Your task to perform on an android device: remove spam from my inbox in the gmail app Image 0: 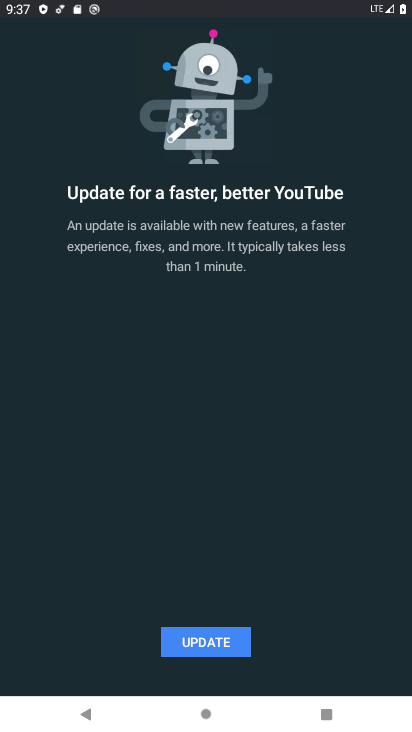
Step 0: press home button
Your task to perform on an android device: remove spam from my inbox in the gmail app Image 1: 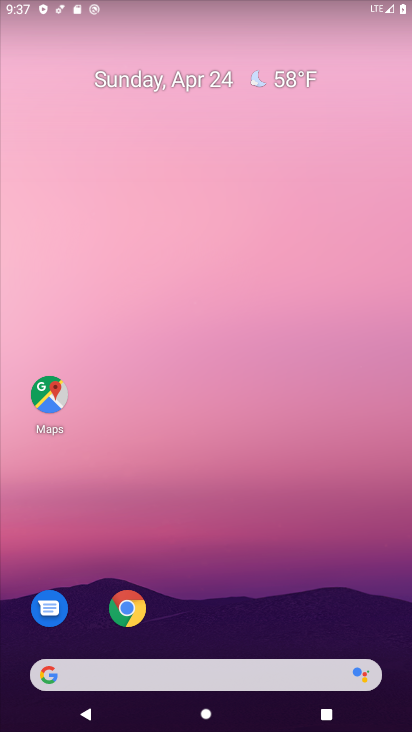
Step 1: drag from (336, 487) to (382, 89)
Your task to perform on an android device: remove spam from my inbox in the gmail app Image 2: 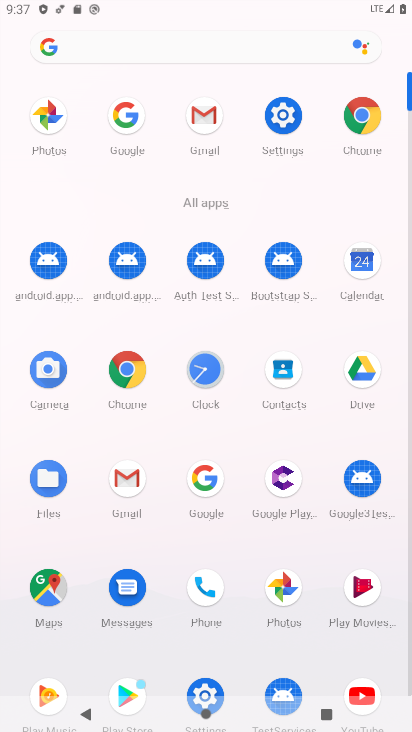
Step 2: click (211, 137)
Your task to perform on an android device: remove spam from my inbox in the gmail app Image 3: 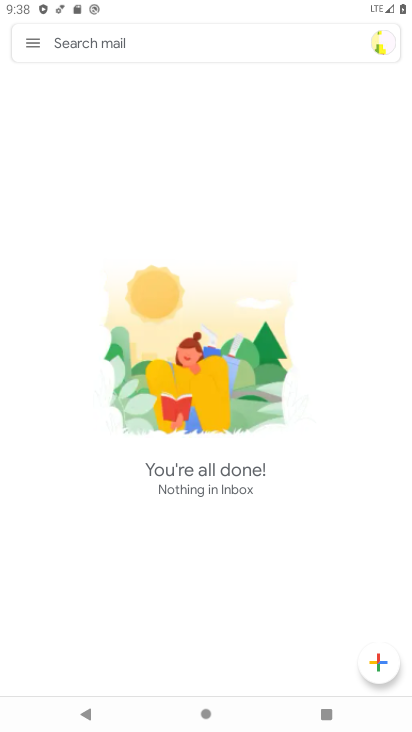
Step 3: click (30, 47)
Your task to perform on an android device: remove spam from my inbox in the gmail app Image 4: 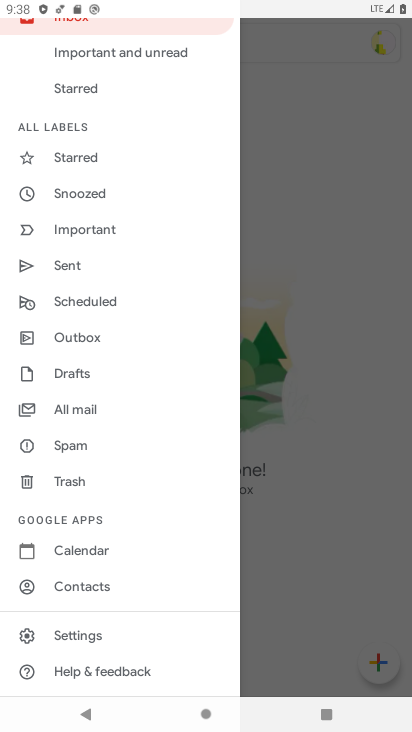
Step 4: click (74, 452)
Your task to perform on an android device: remove spam from my inbox in the gmail app Image 5: 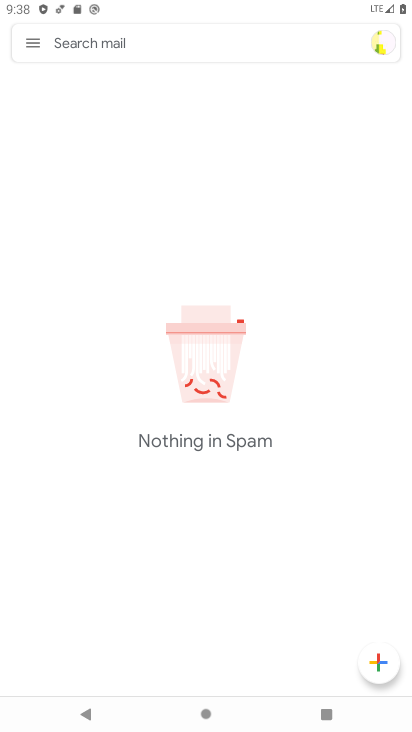
Step 5: click (74, 452)
Your task to perform on an android device: remove spam from my inbox in the gmail app Image 6: 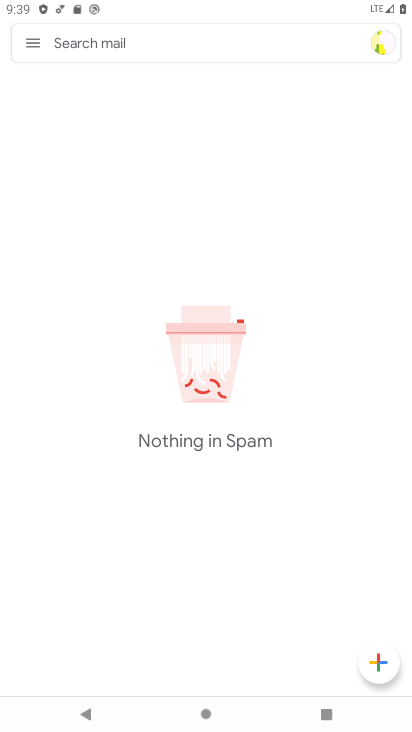
Step 6: click (8, 38)
Your task to perform on an android device: remove spam from my inbox in the gmail app Image 7: 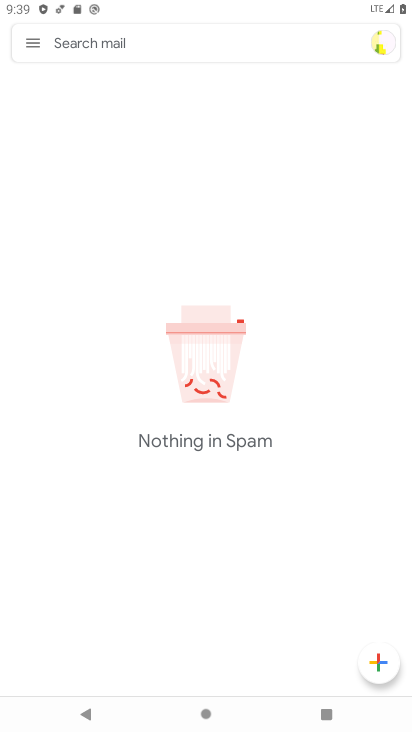
Step 7: click (26, 56)
Your task to perform on an android device: remove spam from my inbox in the gmail app Image 8: 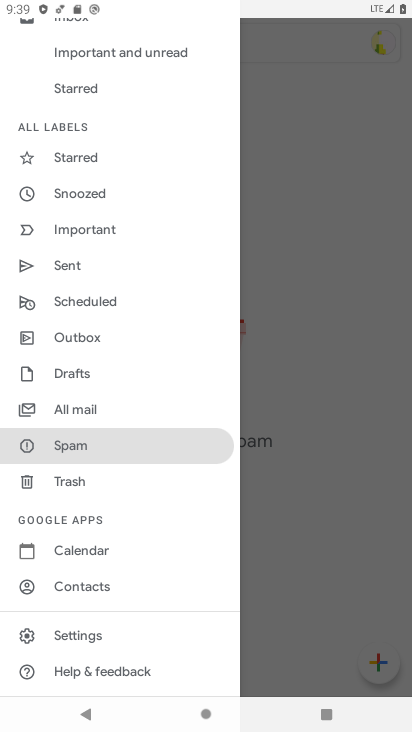
Step 8: click (73, 443)
Your task to perform on an android device: remove spam from my inbox in the gmail app Image 9: 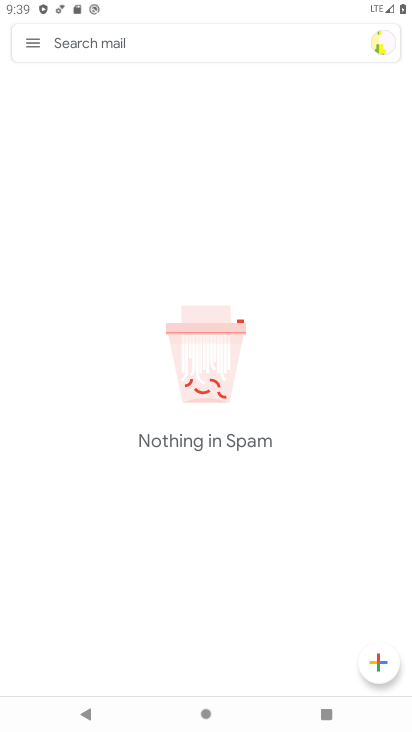
Step 9: click (25, 48)
Your task to perform on an android device: remove spam from my inbox in the gmail app Image 10: 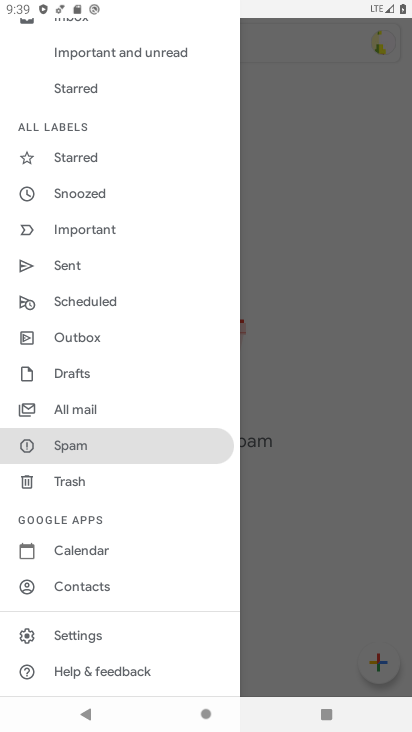
Step 10: click (87, 451)
Your task to perform on an android device: remove spam from my inbox in the gmail app Image 11: 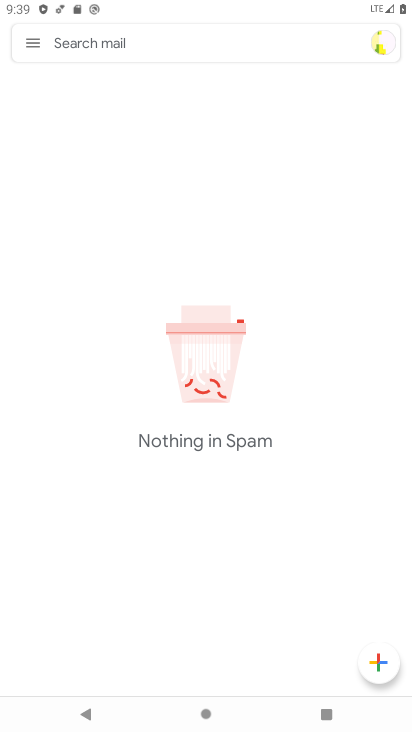
Step 11: task complete